Your task to perform on an android device: uninstall "Facebook" Image 0: 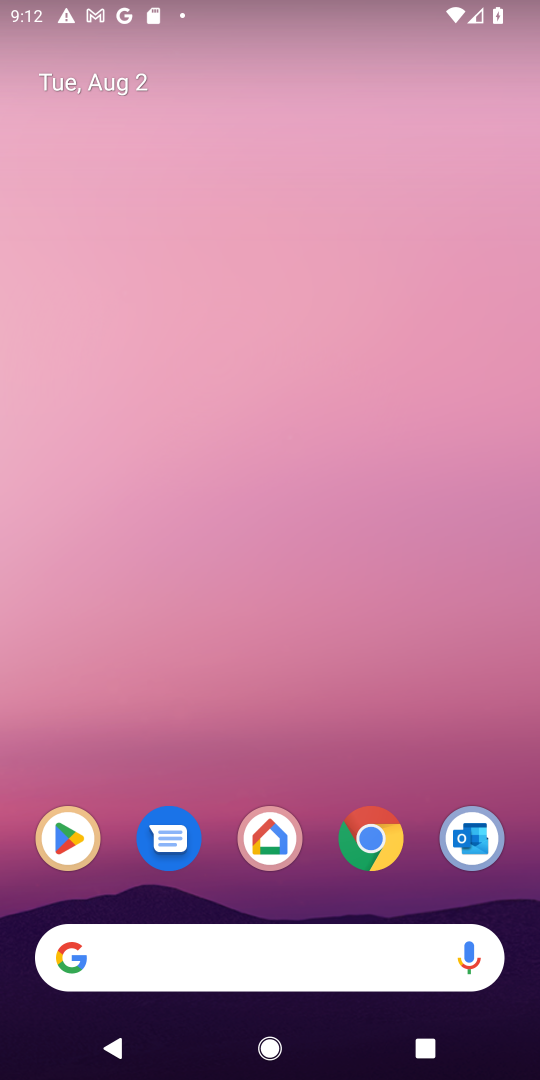
Step 0: press home button
Your task to perform on an android device: uninstall "Facebook" Image 1: 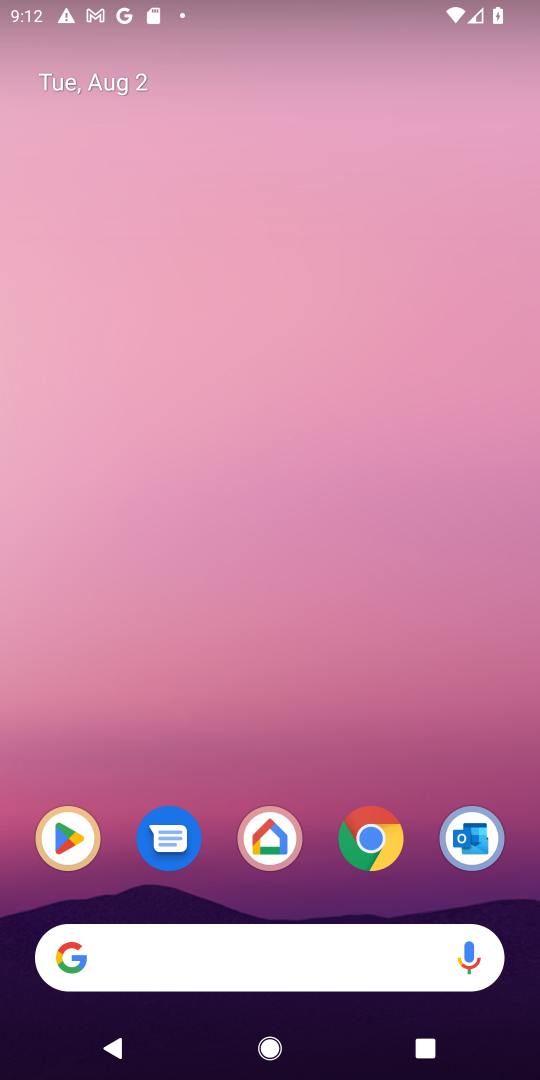
Step 1: drag from (337, 680) to (361, 70)
Your task to perform on an android device: uninstall "Facebook" Image 2: 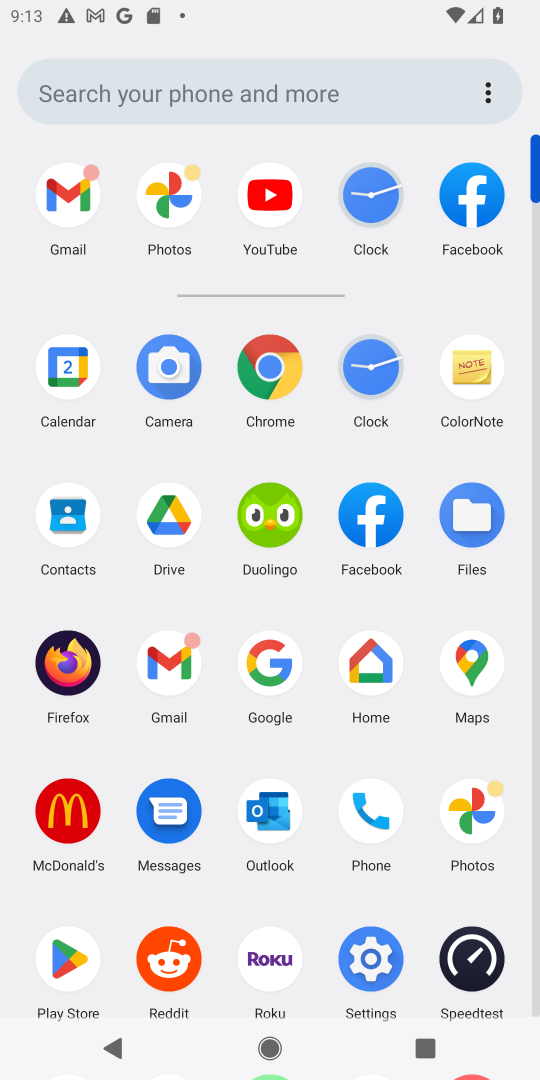
Step 2: click (73, 971)
Your task to perform on an android device: uninstall "Facebook" Image 3: 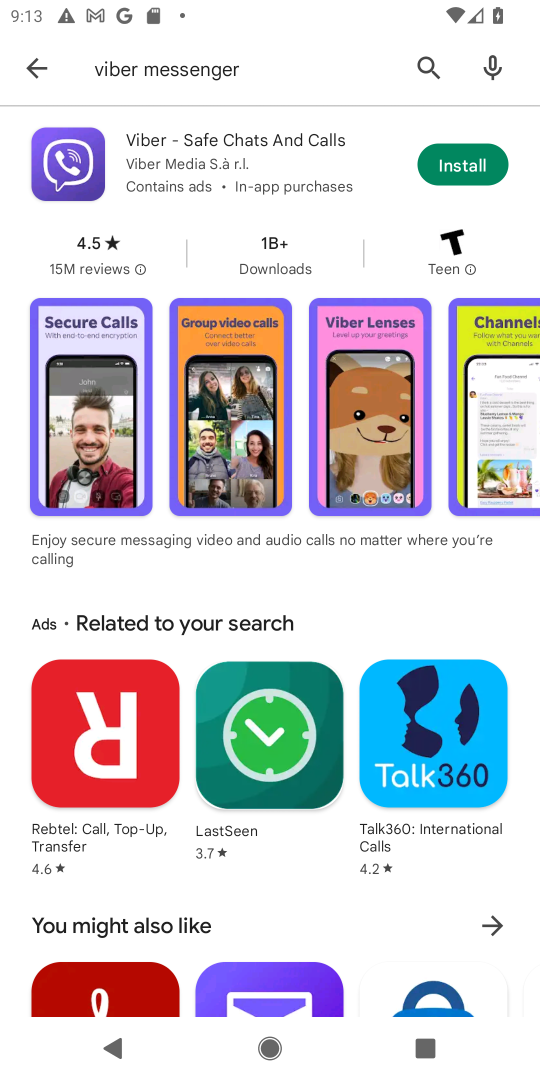
Step 3: click (420, 68)
Your task to perform on an android device: uninstall "Facebook" Image 4: 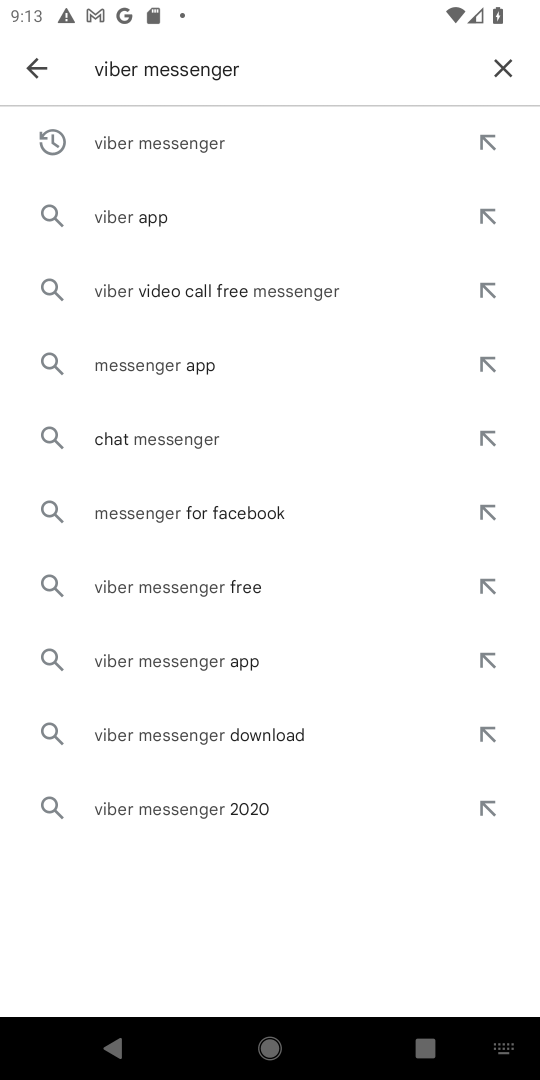
Step 4: click (499, 73)
Your task to perform on an android device: uninstall "Facebook" Image 5: 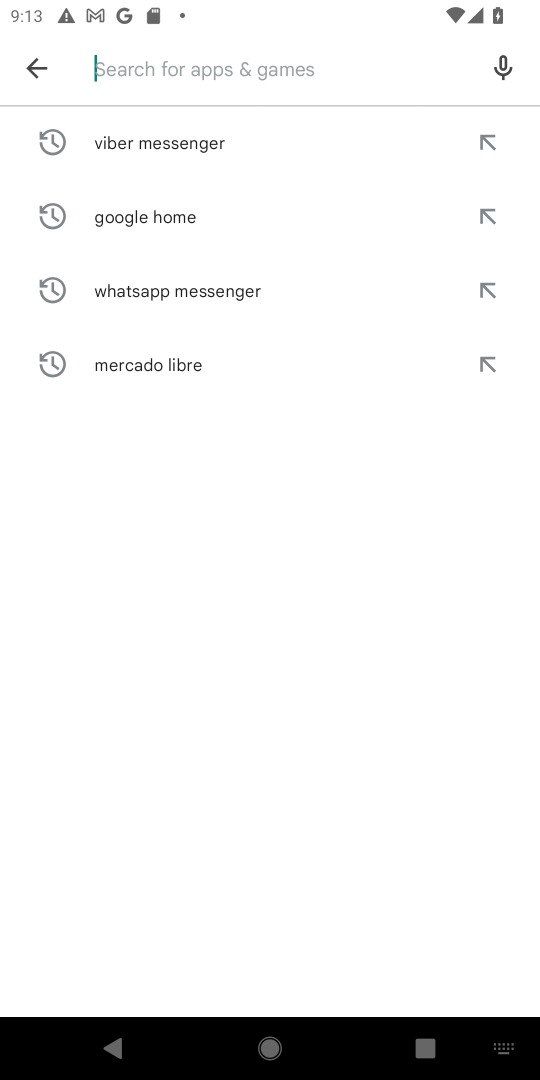
Step 5: type "facebook"
Your task to perform on an android device: uninstall "Facebook" Image 6: 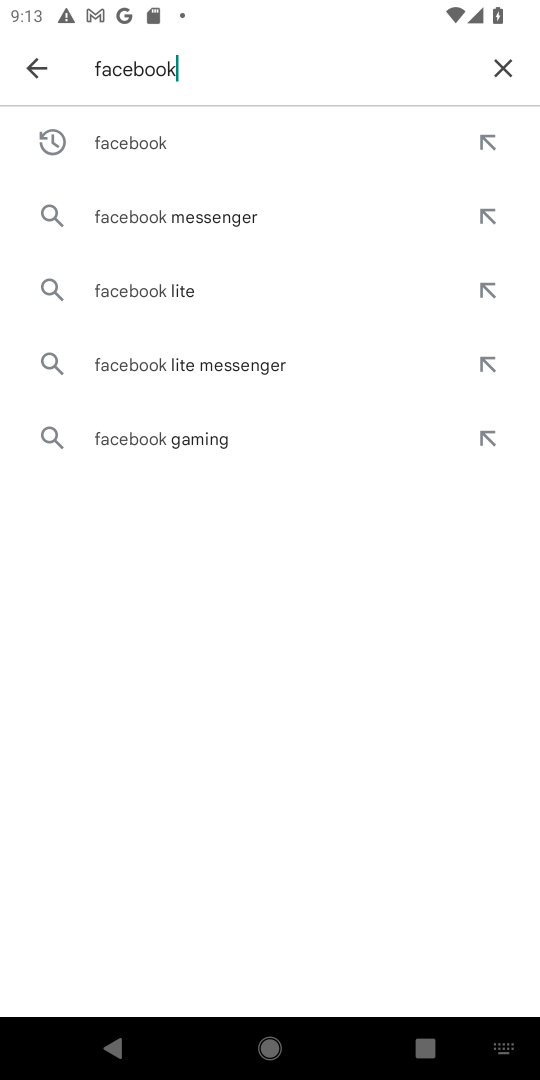
Step 6: click (197, 146)
Your task to perform on an android device: uninstall "Facebook" Image 7: 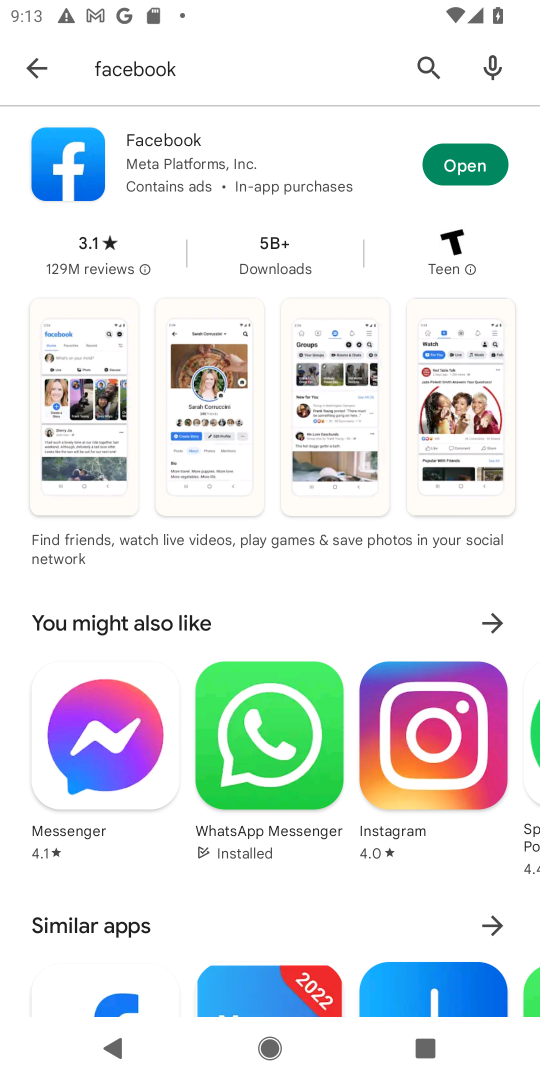
Step 7: task complete